Your task to perform on an android device: Open the calendar app, open the side menu, and click the "Day" option Image 0: 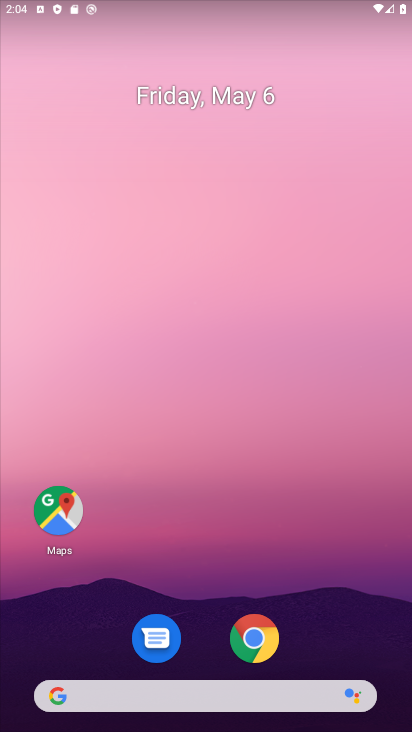
Step 0: drag from (229, 716) to (211, 28)
Your task to perform on an android device: Open the calendar app, open the side menu, and click the "Day" option Image 1: 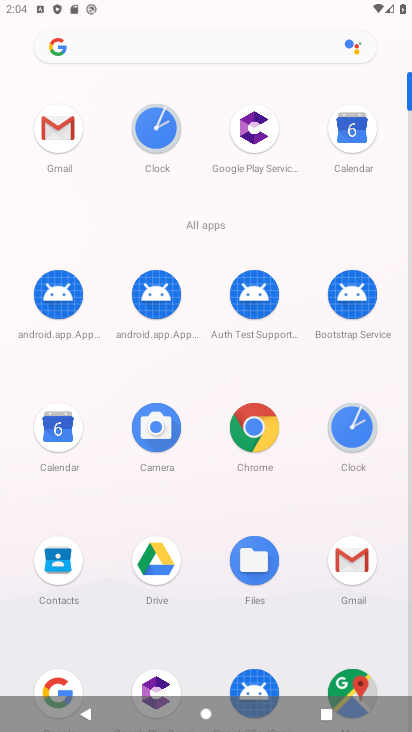
Step 1: click (63, 440)
Your task to perform on an android device: Open the calendar app, open the side menu, and click the "Day" option Image 2: 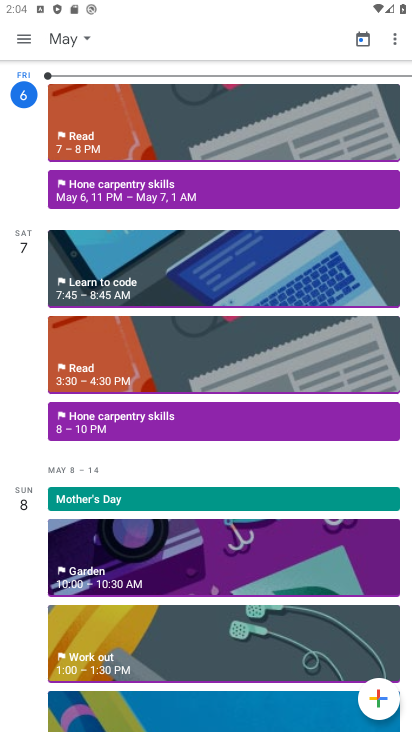
Step 2: click (28, 41)
Your task to perform on an android device: Open the calendar app, open the side menu, and click the "Day" option Image 3: 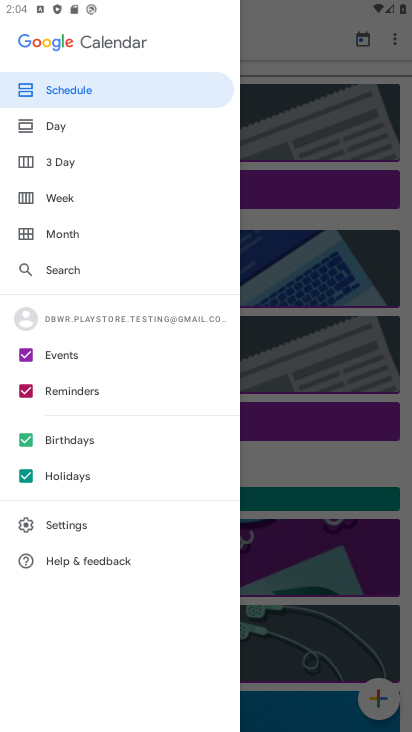
Step 3: click (66, 131)
Your task to perform on an android device: Open the calendar app, open the side menu, and click the "Day" option Image 4: 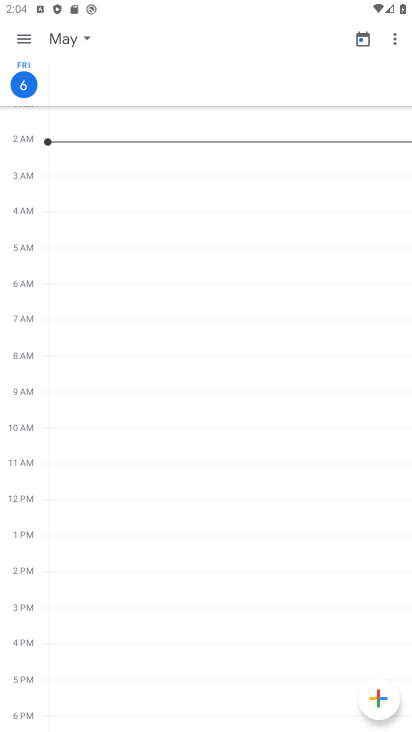
Step 4: task complete